Your task to perform on an android device: install app "Indeed Job Search" Image 0: 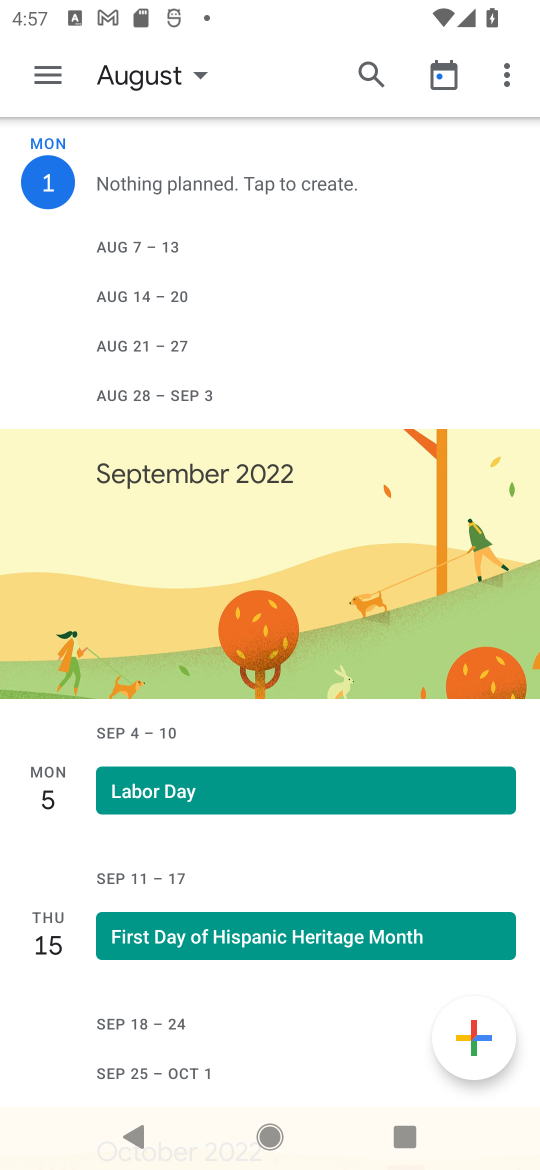
Step 0: press home button
Your task to perform on an android device: install app "Indeed Job Search" Image 1: 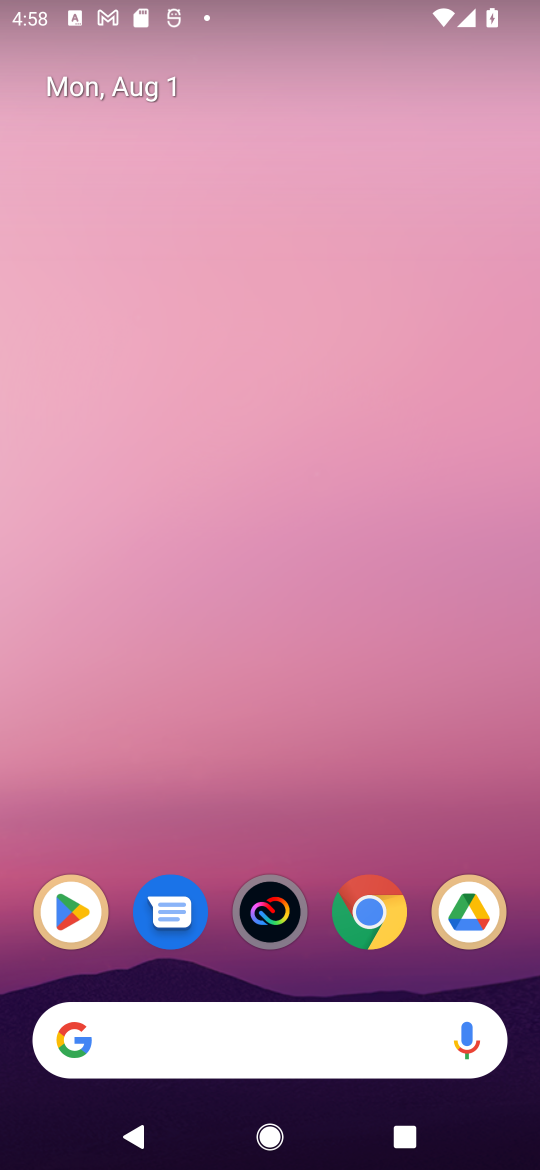
Step 1: click (75, 915)
Your task to perform on an android device: install app "Indeed Job Search" Image 2: 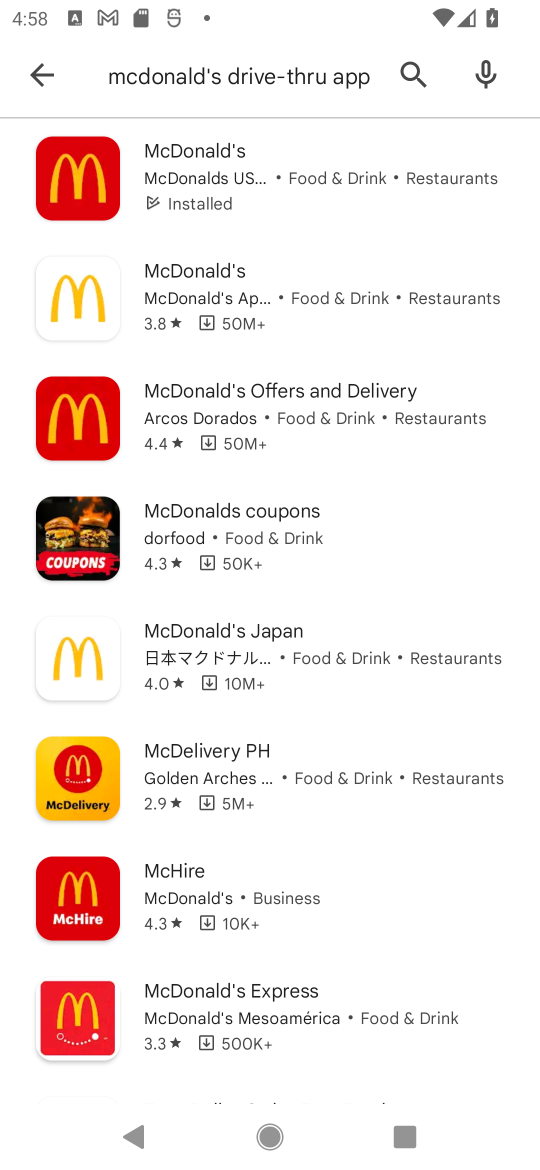
Step 2: click (401, 65)
Your task to perform on an android device: install app "Indeed Job Search" Image 3: 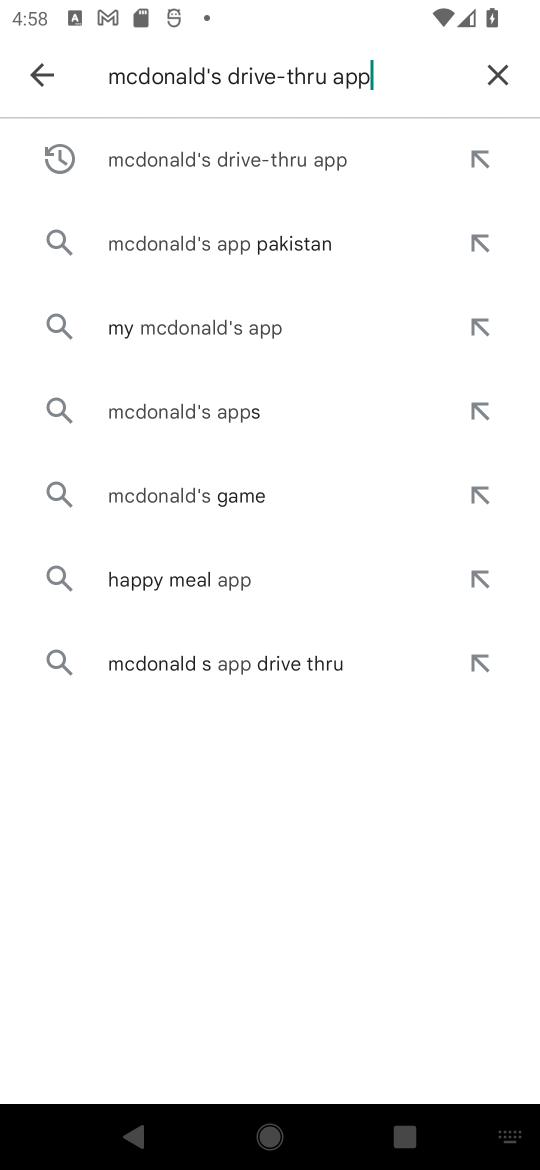
Step 3: click (494, 88)
Your task to perform on an android device: install app "Indeed Job Search" Image 4: 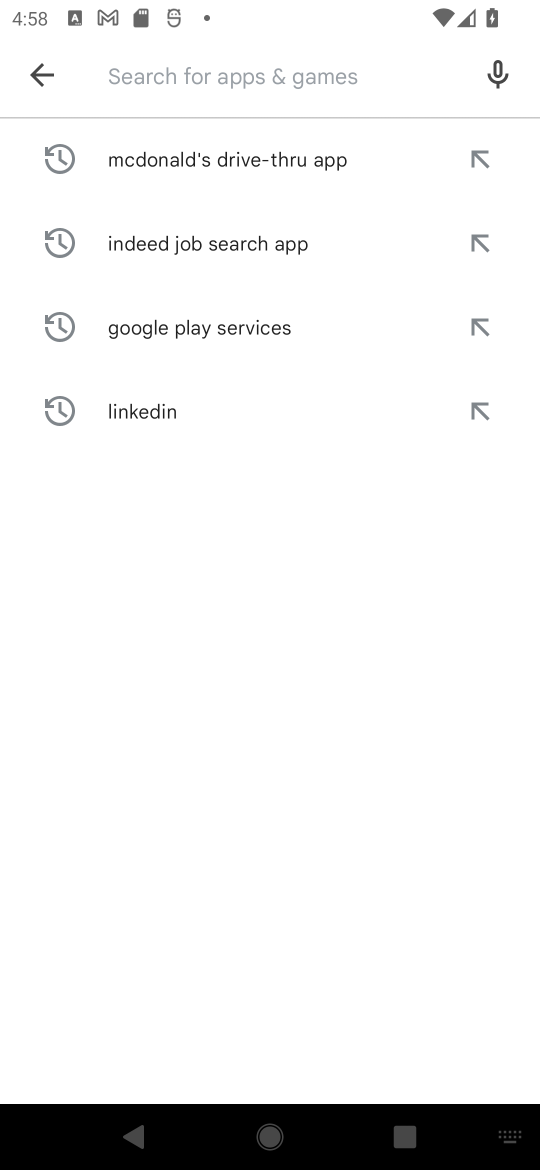
Step 4: type "Indeed Job Search"
Your task to perform on an android device: install app "Indeed Job Search" Image 5: 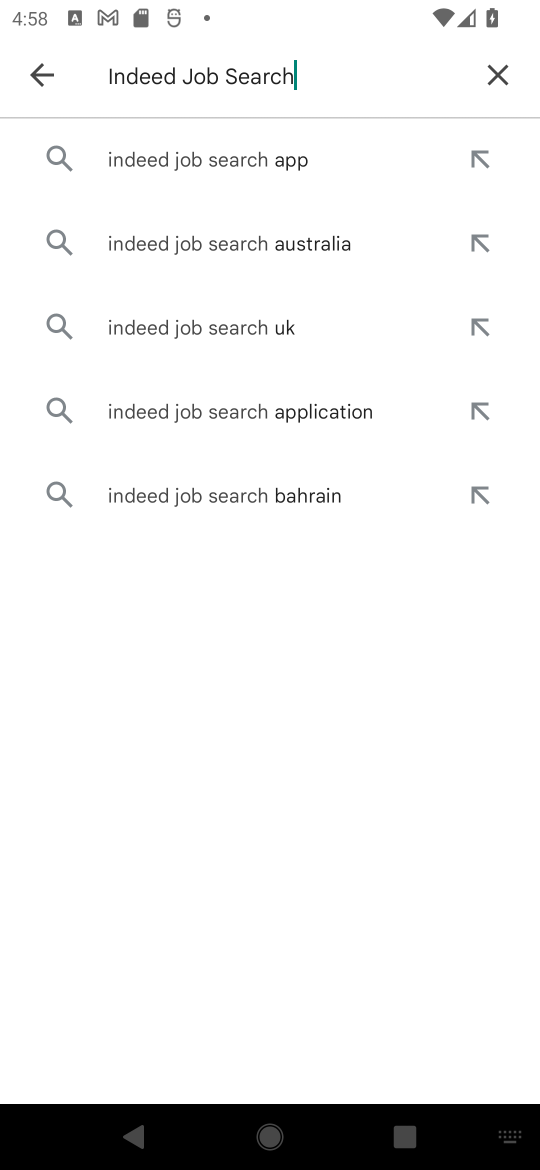
Step 5: click (164, 165)
Your task to perform on an android device: install app "Indeed Job Search" Image 6: 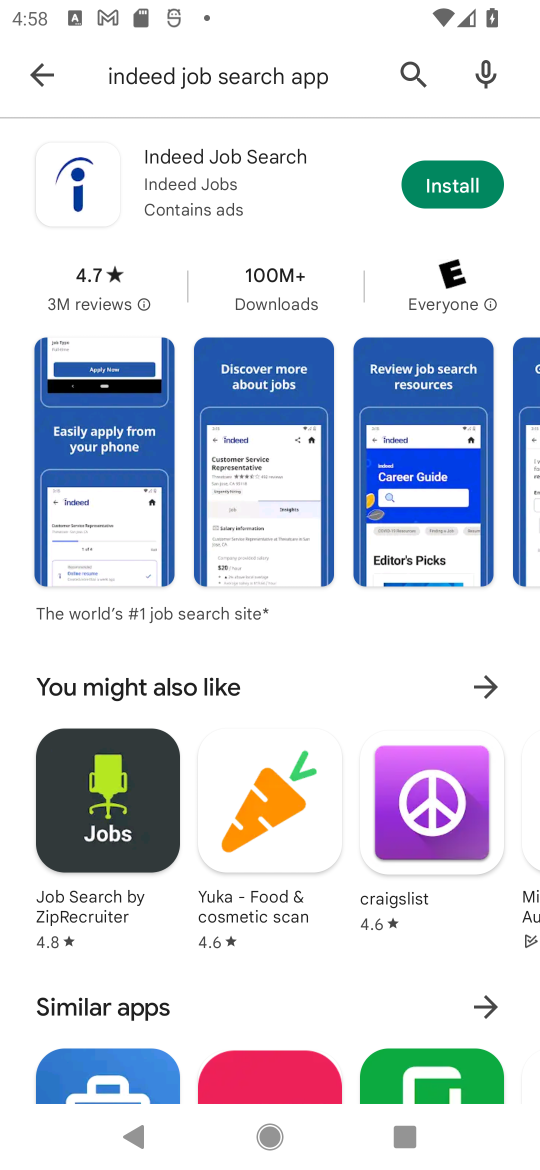
Step 6: click (457, 198)
Your task to perform on an android device: install app "Indeed Job Search" Image 7: 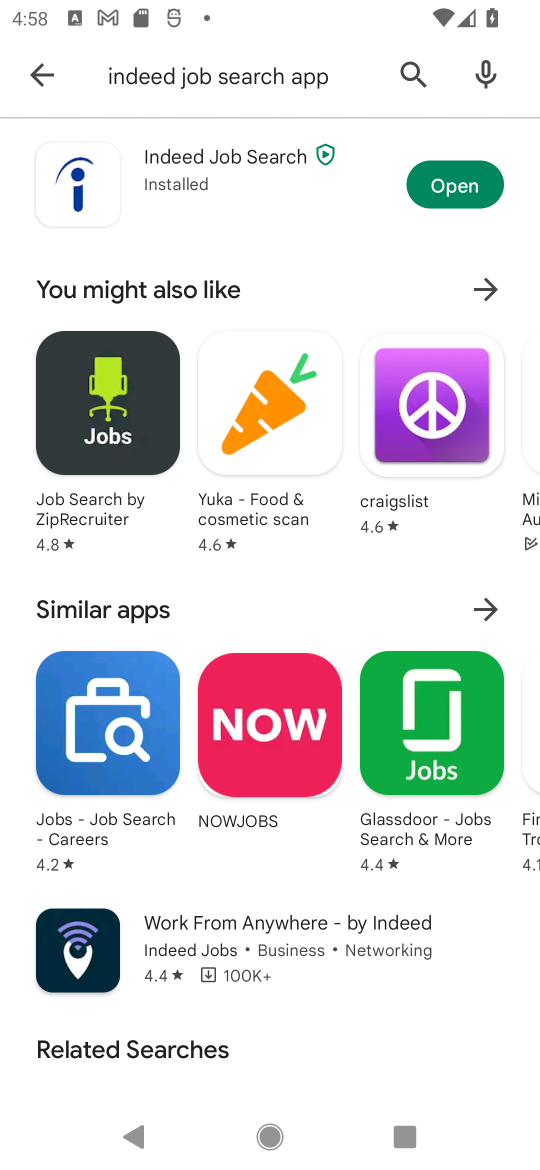
Step 7: task complete